Your task to perform on an android device: Search for pizza restaurants on Maps Image 0: 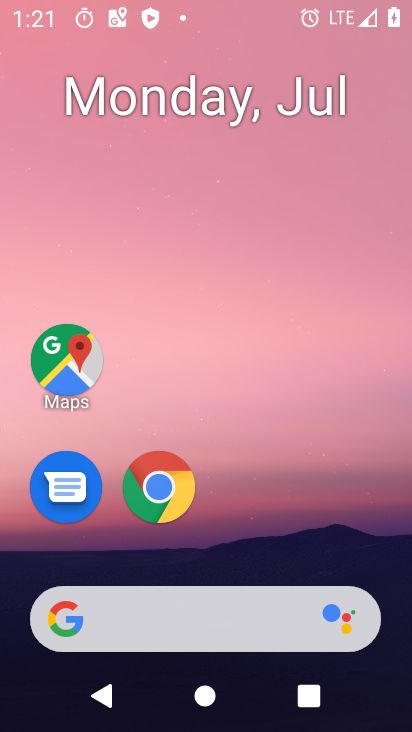
Step 0: press home button
Your task to perform on an android device: Search for pizza restaurants on Maps Image 1: 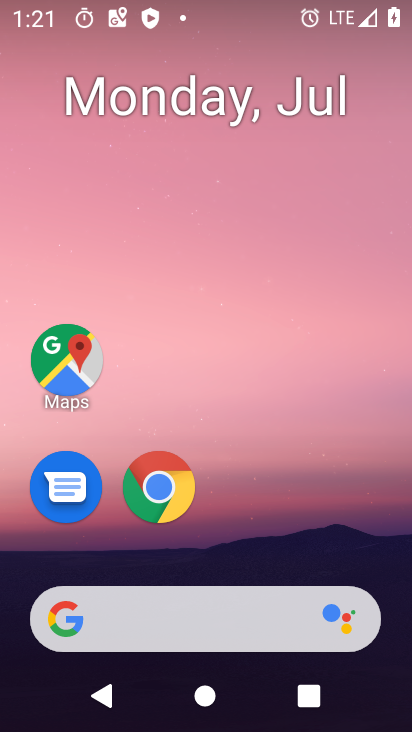
Step 1: click (58, 363)
Your task to perform on an android device: Search for pizza restaurants on Maps Image 2: 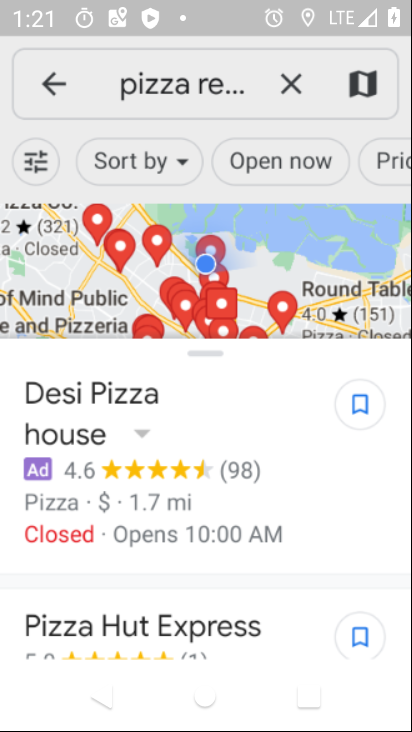
Step 2: click (41, 79)
Your task to perform on an android device: Search for pizza restaurants on Maps Image 3: 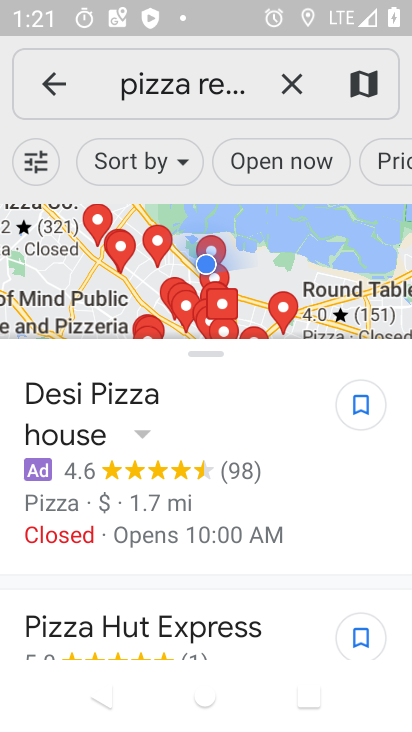
Step 3: task complete